Your task to perform on an android device: Check the news Image 0: 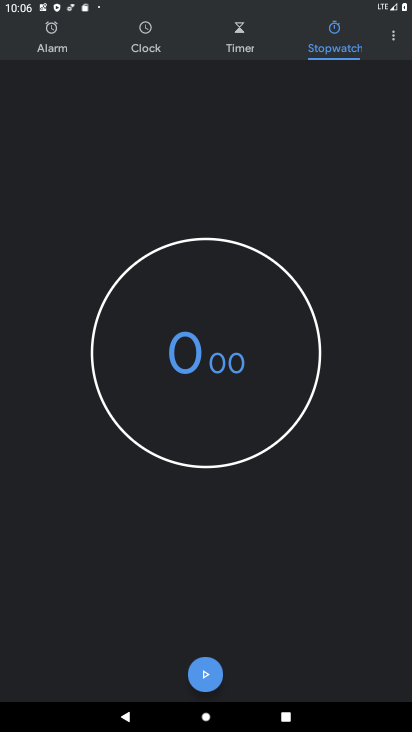
Step 0: press home button
Your task to perform on an android device: Check the news Image 1: 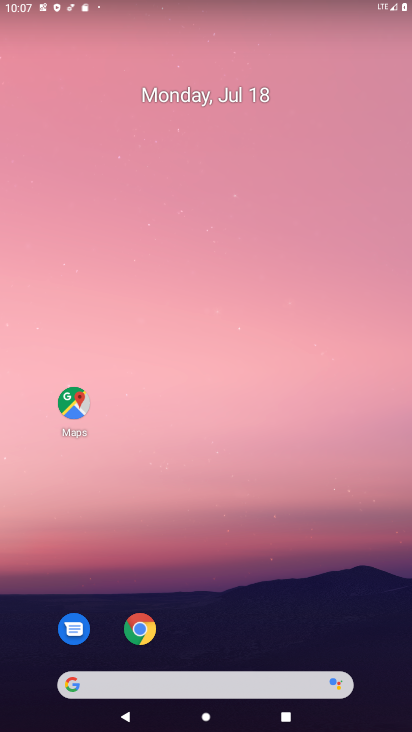
Step 1: click (141, 634)
Your task to perform on an android device: Check the news Image 2: 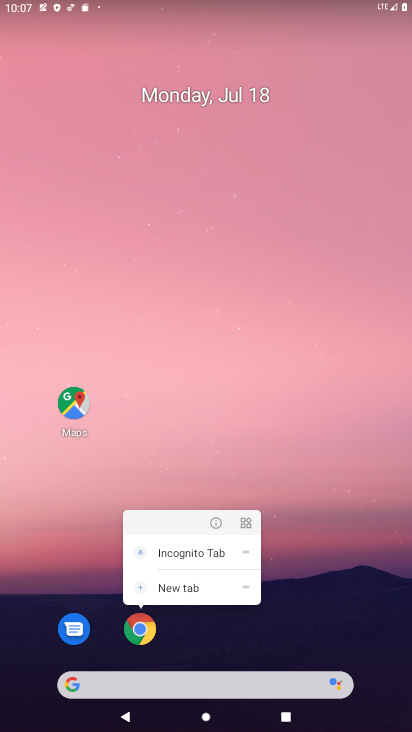
Step 2: click (141, 632)
Your task to perform on an android device: Check the news Image 3: 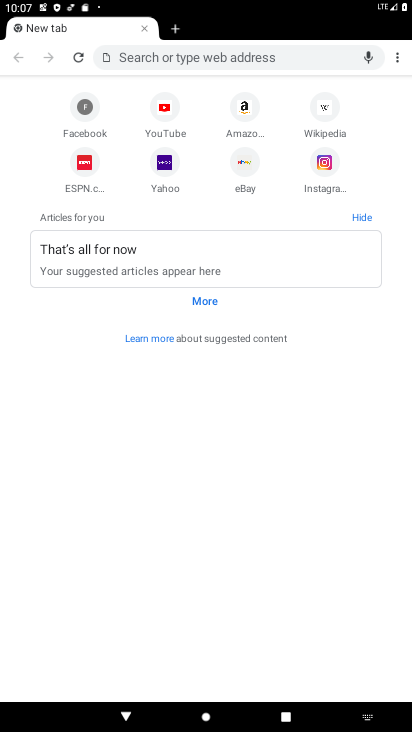
Step 3: type "news"
Your task to perform on an android device: Check the news Image 4: 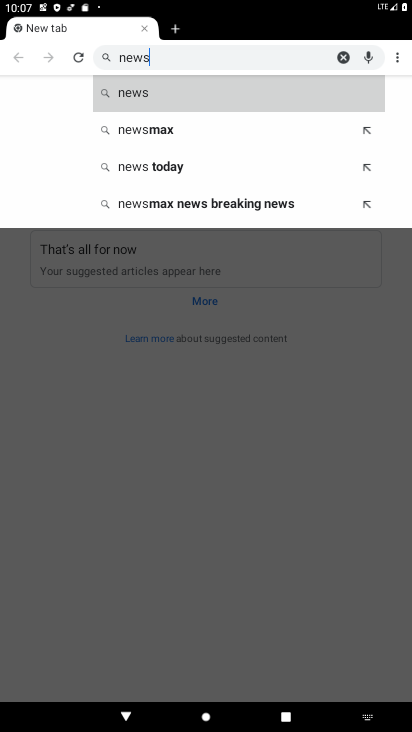
Step 4: click (166, 85)
Your task to perform on an android device: Check the news Image 5: 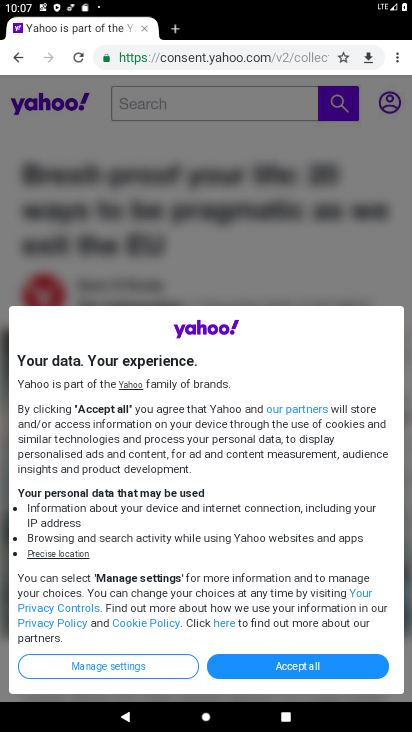
Step 5: task complete